Your task to perform on an android device: Open my contact list Image 0: 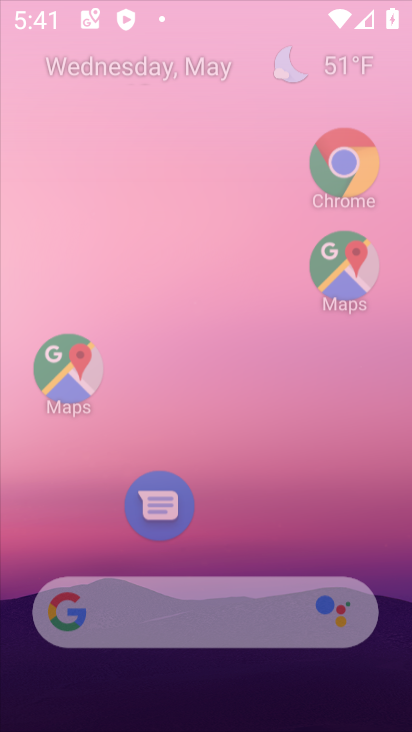
Step 0: press home button
Your task to perform on an android device: Open my contact list Image 1: 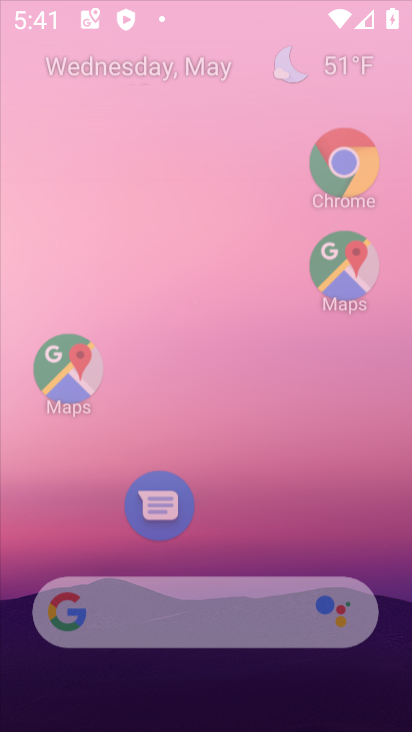
Step 1: click (329, 231)
Your task to perform on an android device: Open my contact list Image 2: 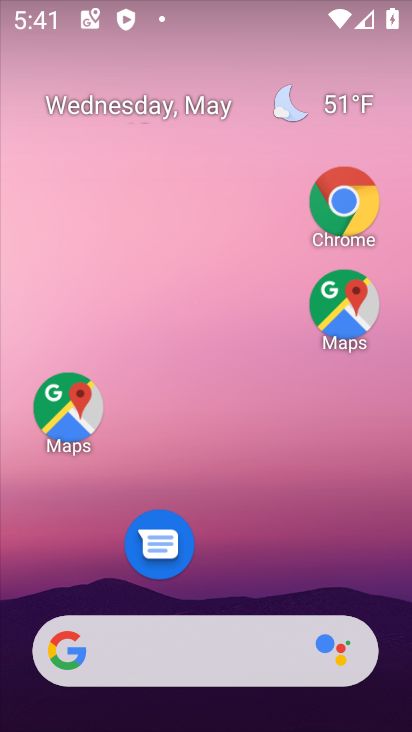
Step 2: click (349, 217)
Your task to perform on an android device: Open my contact list Image 3: 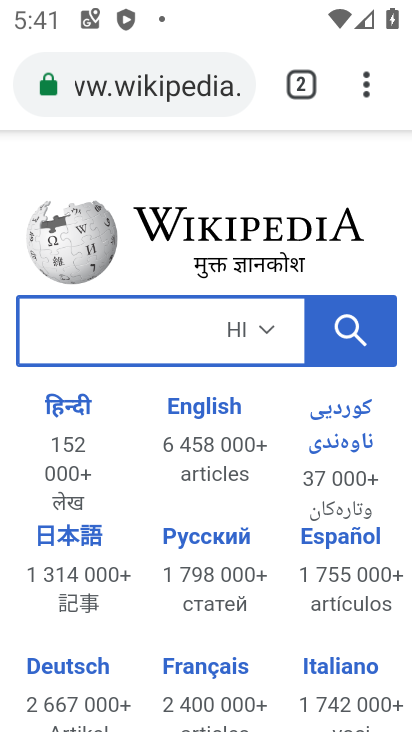
Step 3: click (154, 88)
Your task to perform on an android device: Open my contact list Image 4: 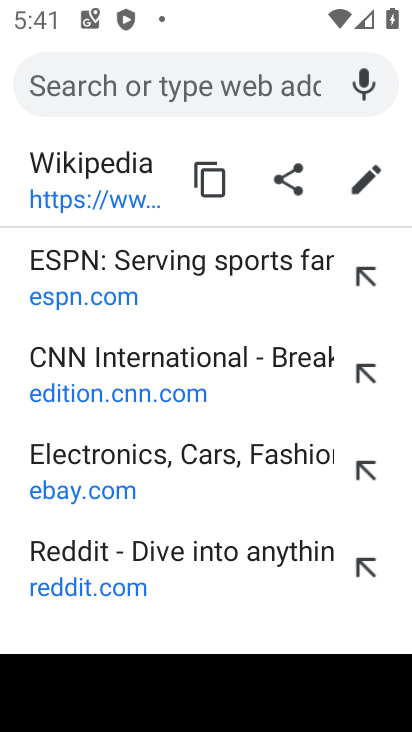
Step 4: click (260, 414)
Your task to perform on an android device: Open my contact list Image 5: 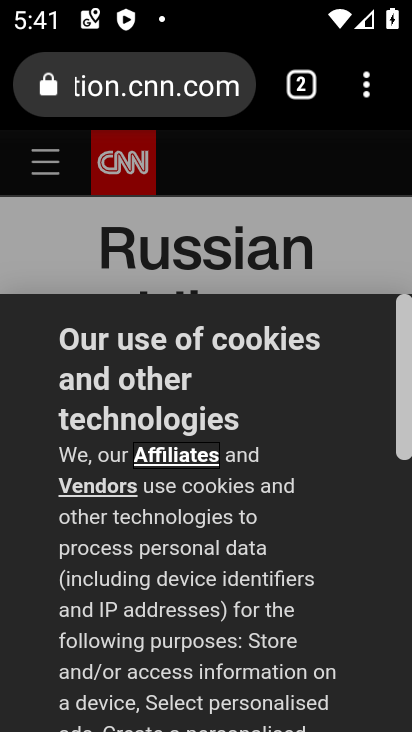
Step 5: task complete